Your task to perform on an android device: open wifi settings Image 0: 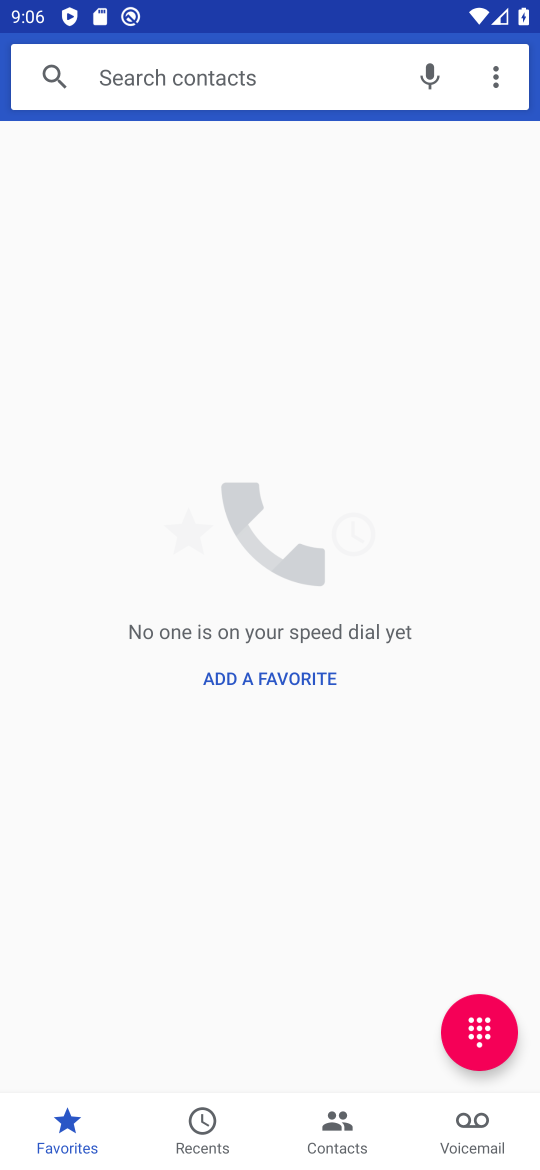
Step 0: drag from (331, 5) to (331, 775)
Your task to perform on an android device: open wifi settings Image 1: 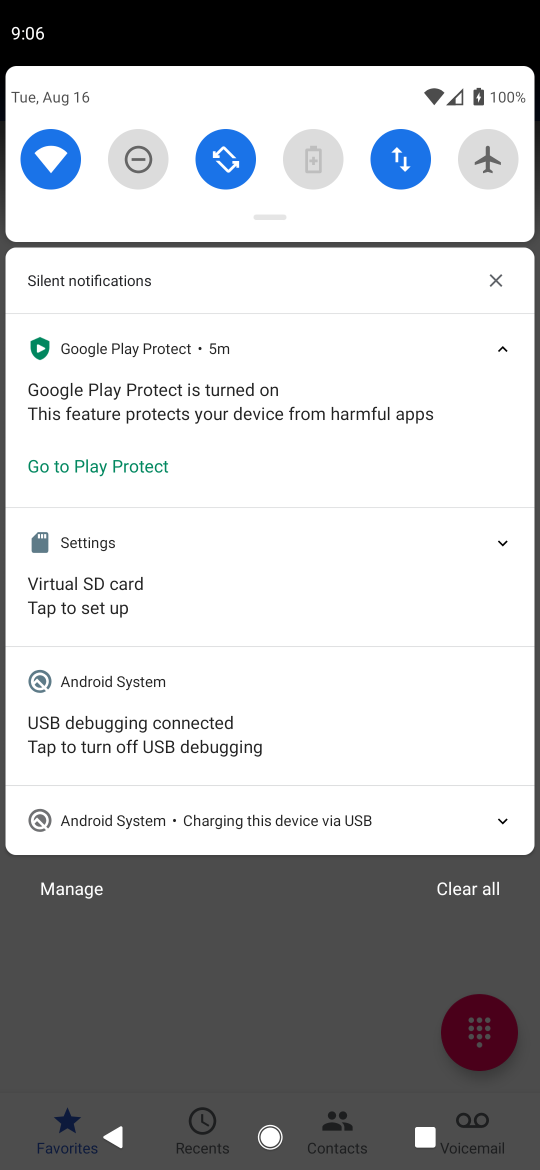
Step 1: click (56, 162)
Your task to perform on an android device: open wifi settings Image 2: 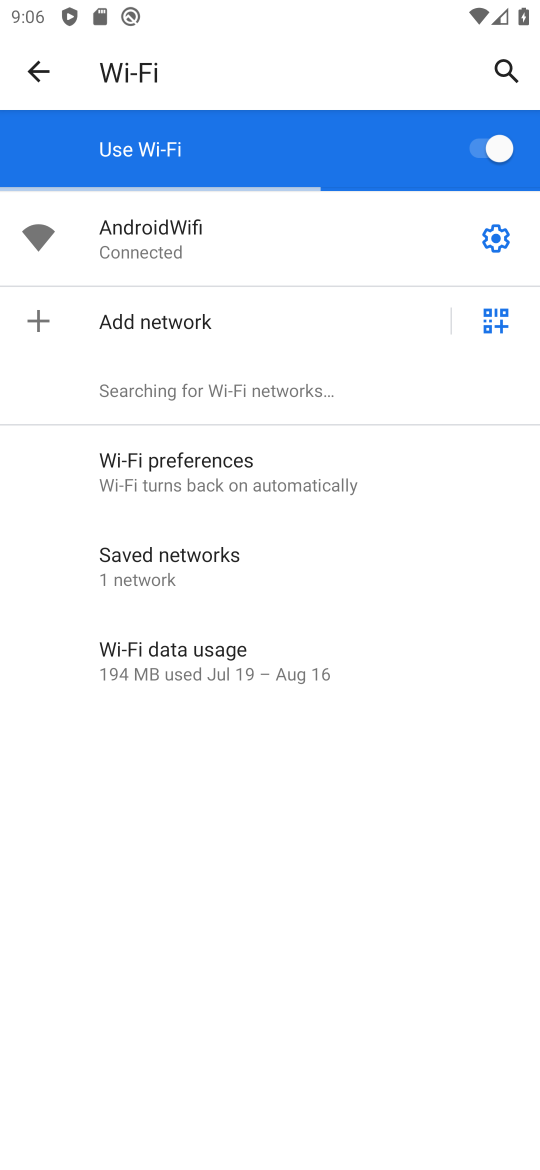
Step 2: task complete